Your task to perform on an android device: open app "DuckDuckGo Privacy Browser" Image 0: 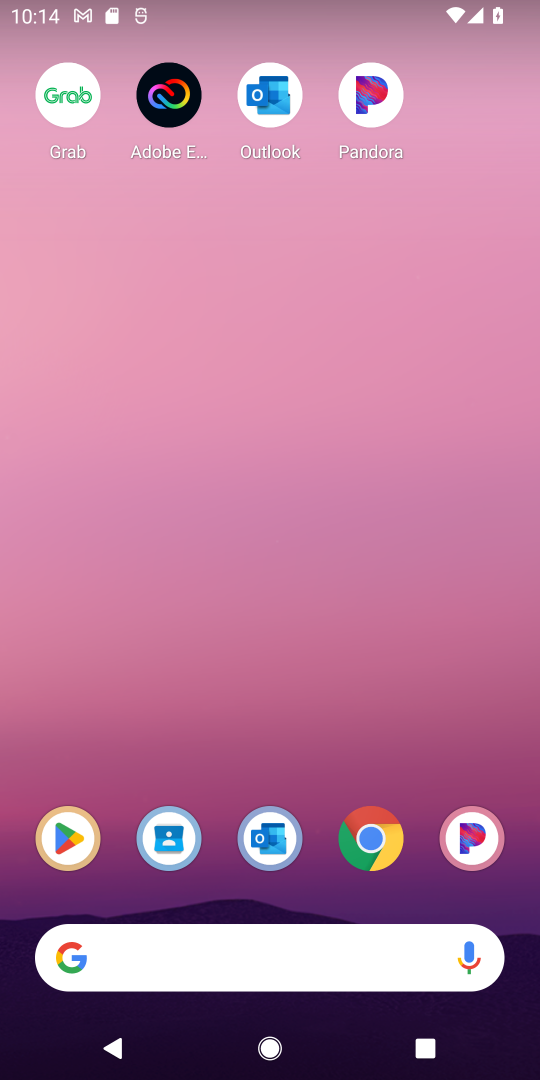
Step 0: click (77, 853)
Your task to perform on an android device: open app "DuckDuckGo Privacy Browser" Image 1: 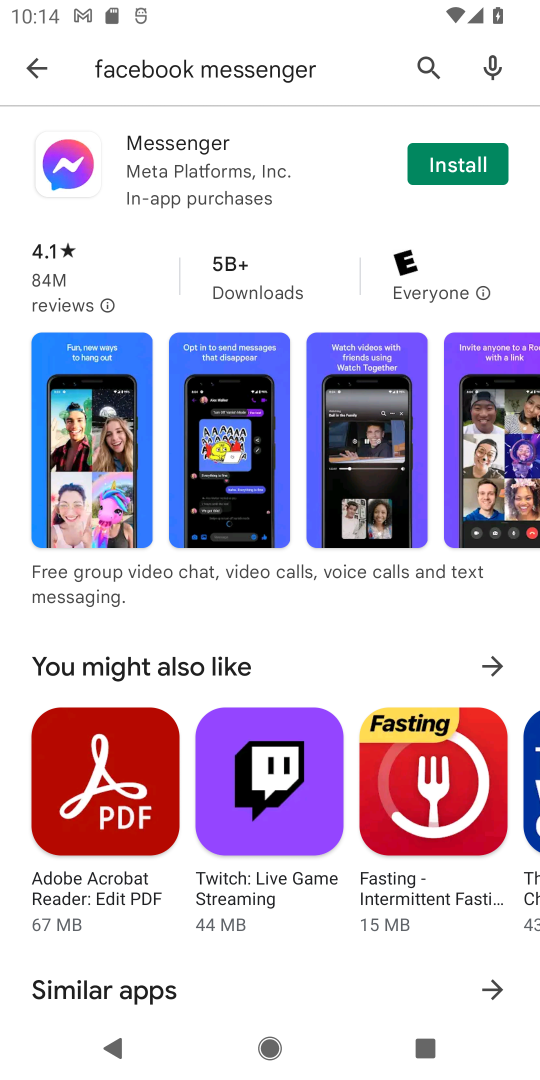
Step 1: click (251, 37)
Your task to perform on an android device: open app "DuckDuckGo Privacy Browser" Image 2: 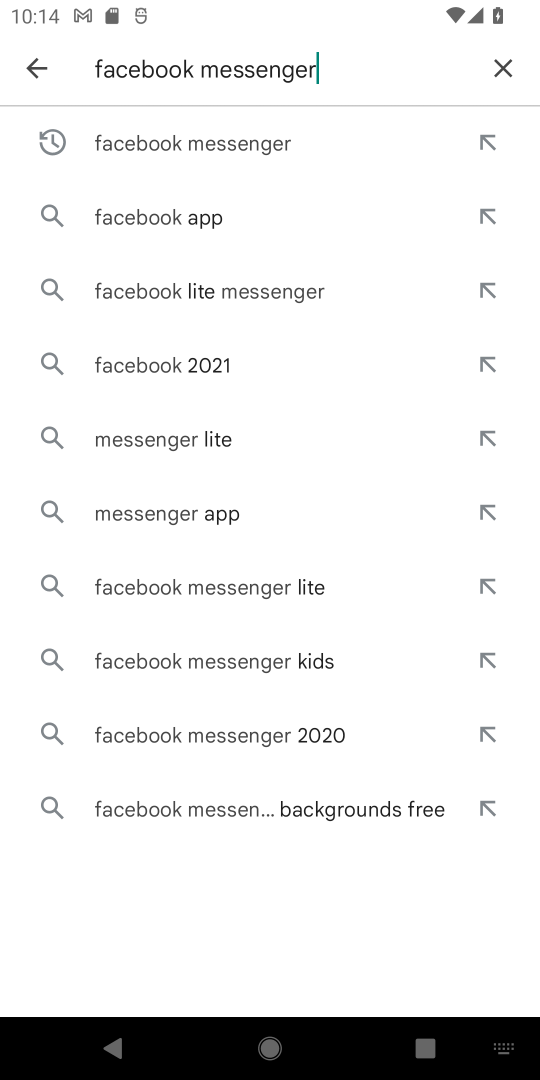
Step 2: click (498, 58)
Your task to perform on an android device: open app "DuckDuckGo Privacy Browser" Image 3: 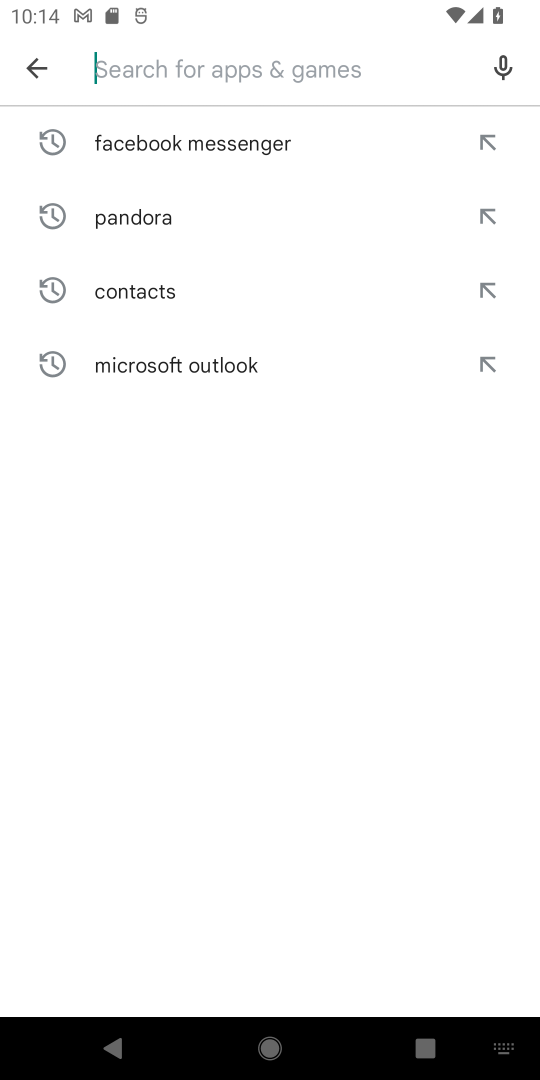
Step 3: type "duckduckgo browser"
Your task to perform on an android device: open app "DuckDuckGo Privacy Browser" Image 4: 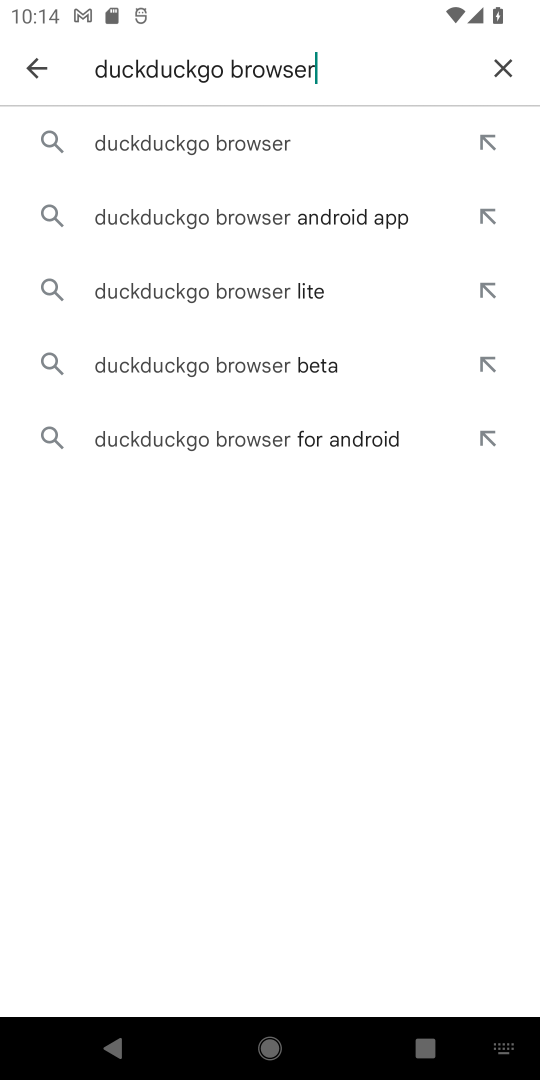
Step 4: click (112, 141)
Your task to perform on an android device: open app "DuckDuckGo Privacy Browser" Image 5: 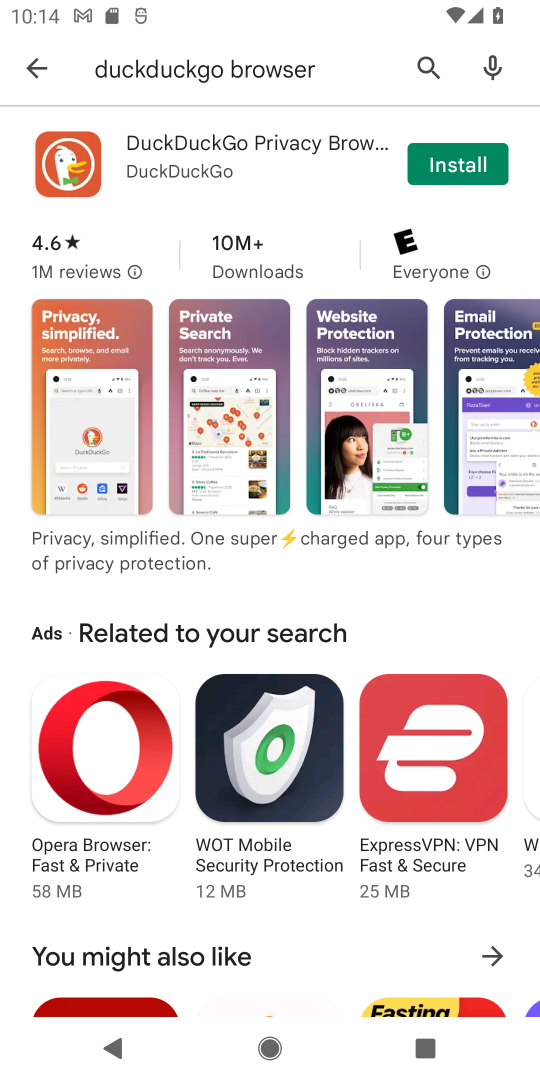
Step 5: task complete